Your task to perform on an android device: Check the weather Image 0: 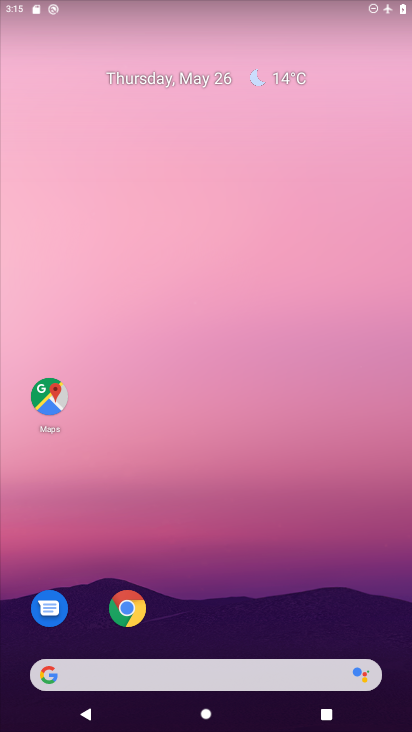
Step 0: drag from (254, 491) to (295, 17)
Your task to perform on an android device: Check the weather Image 1: 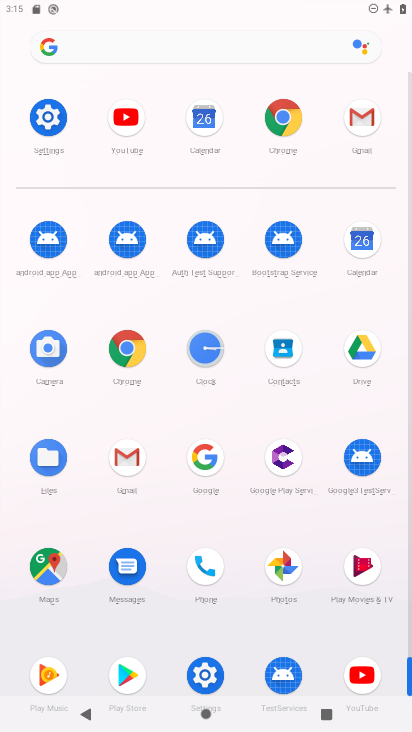
Step 1: click (40, 41)
Your task to perform on an android device: Check the weather Image 2: 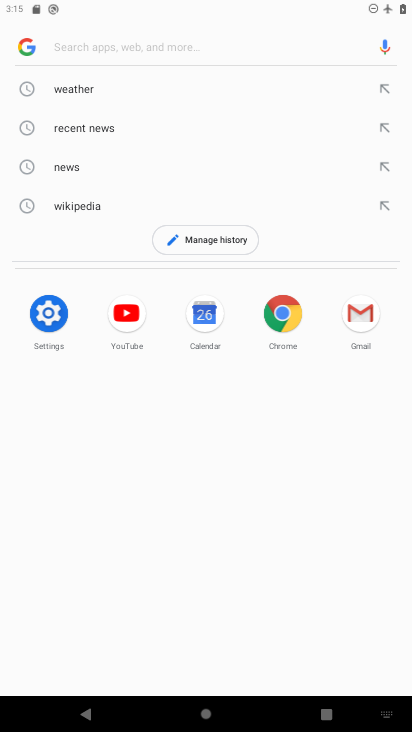
Step 2: click (40, 40)
Your task to perform on an android device: Check the weather Image 3: 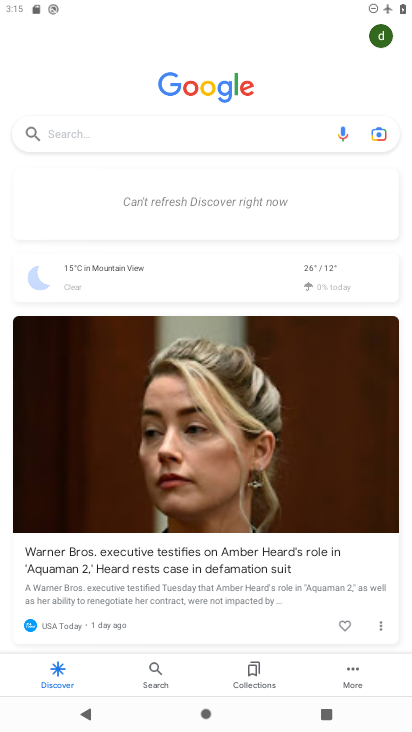
Step 3: click (124, 283)
Your task to perform on an android device: Check the weather Image 4: 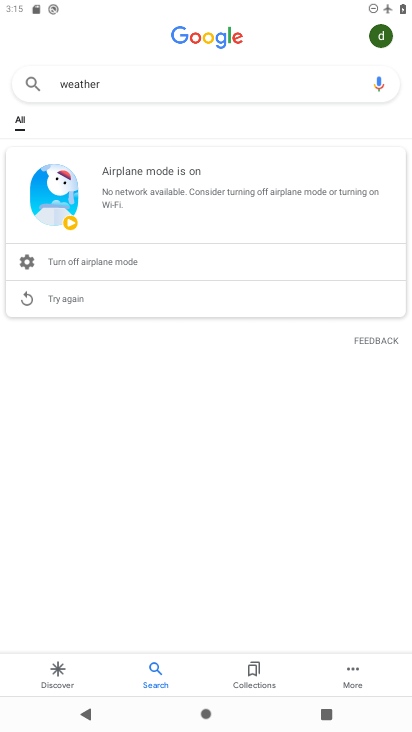
Step 4: task complete